Your task to perform on an android device: Do I have any events tomorrow? Image 0: 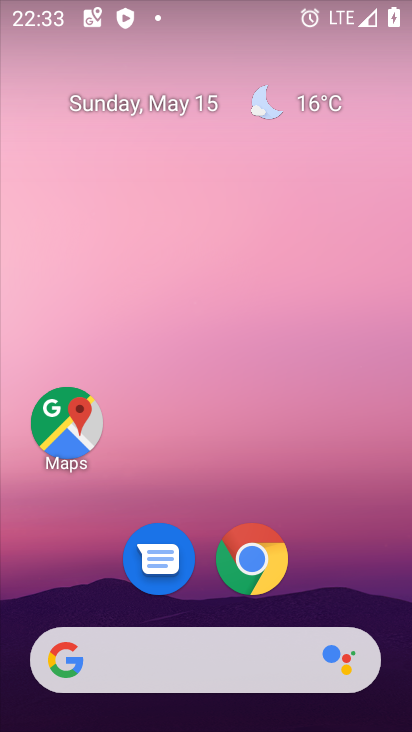
Step 0: drag from (193, 494) to (133, 27)
Your task to perform on an android device: Do I have any events tomorrow? Image 1: 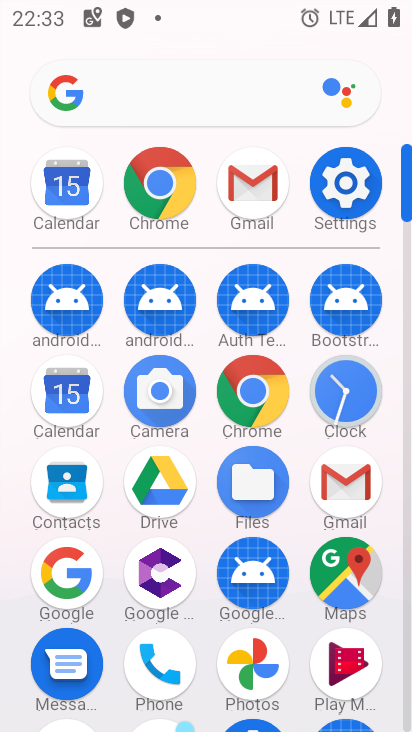
Step 1: click (79, 383)
Your task to perform on an android device: Do I have any events tomorrow? Image 2: 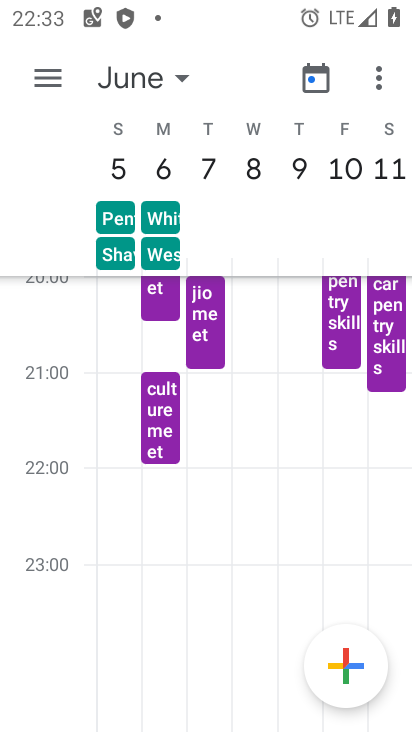
Step 2: click (54, 75)
Your task to perform on an android device: Do I have any events tomorrow? Image 3: 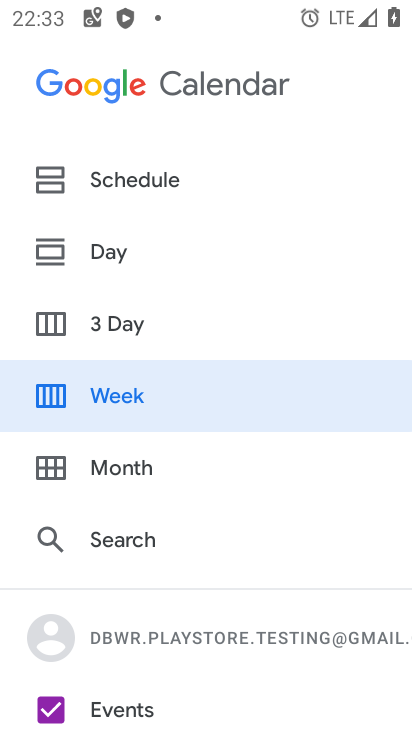
Step 3: click (103, 244)
Your task to perform on an android device: Do I have any events tomorrow? Image 4: 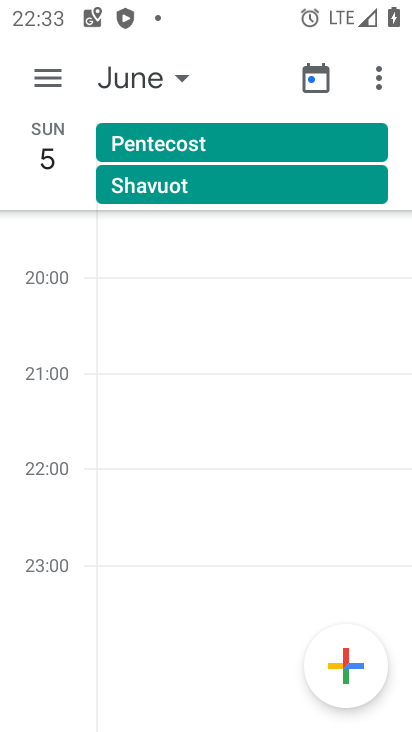
Step 4: click (181, 73)
Your task to perform on an android device: Do I have any events tomorrow? Image 5: 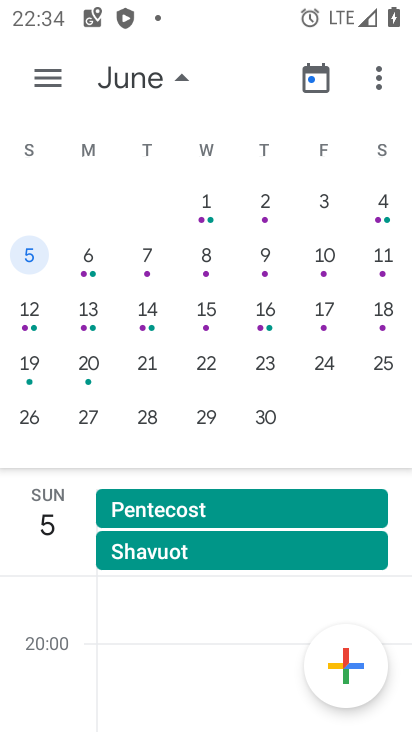
Step 5: drag from (34, 309) to (376, 329)
Your task to perform on an android device: Do I have any events tomorrow? Image 6: 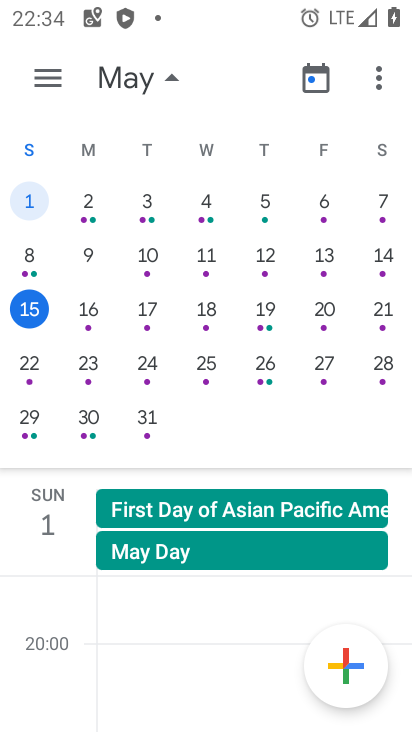
Step 6: click (89, 302)
Your task to perform on an android device: Do I have any events tomorrow? Image 7: 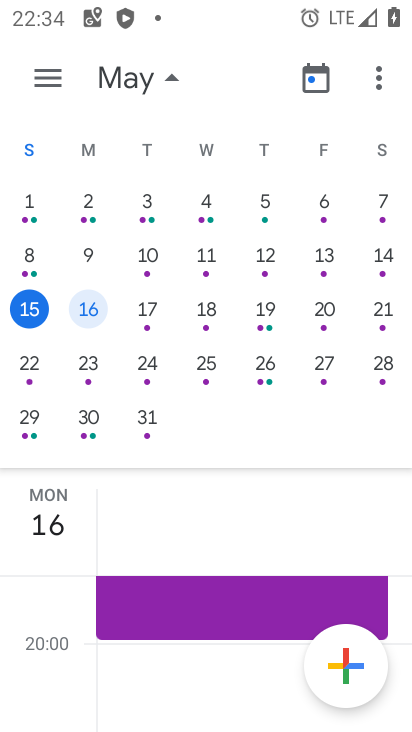
Step 7: task complete